Your task to perform on an android device: turn smart compose on in the gmail app Image 0: 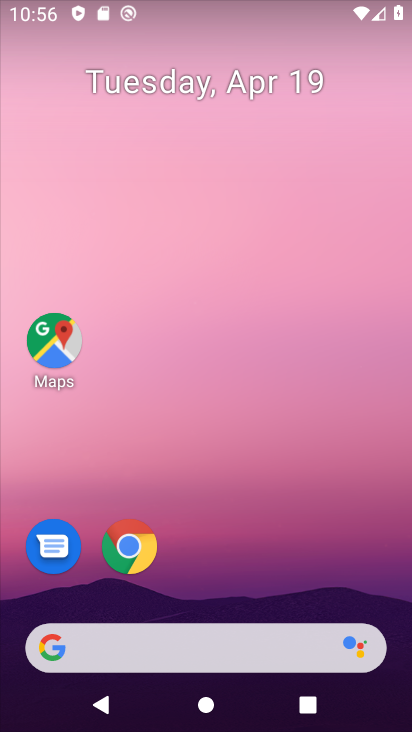
Step 0: drag from (234, 614) to (259, 0)
Your task to perform on an android device: turn smart compose on in the gmail app Image 1: 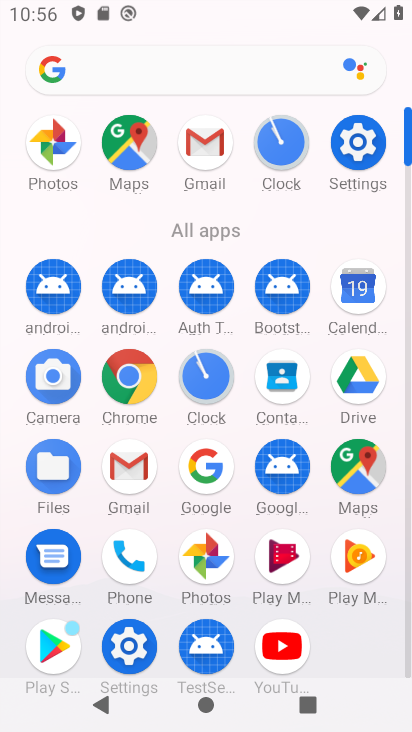
Step 1: click (212, 143)
Your task to perform on an android device: turn smart compose on in the gmail app Image 2: 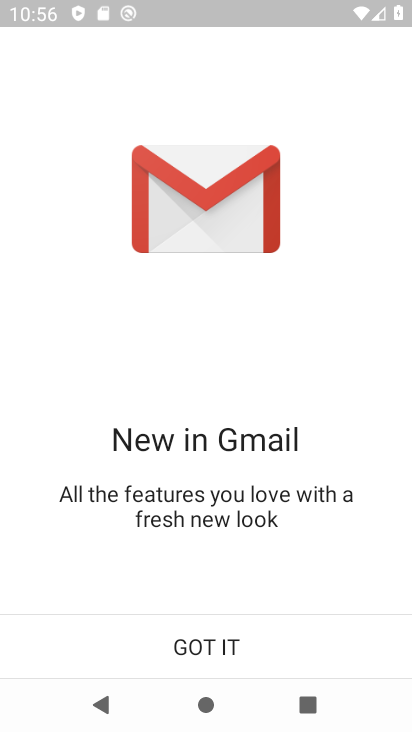
Step 2: click (222, 622)
Your task to perform on an android device: turn smart compose on in the gmail app Image 3: 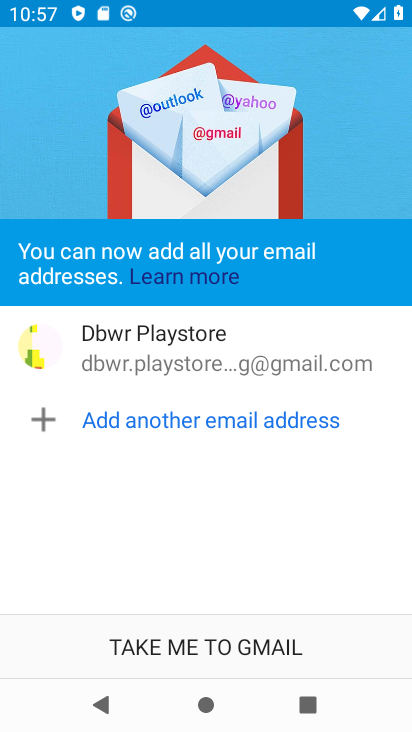
Step 3: click (196, 640)
Your task to perform on an android device: turn smart compose on in the gmail app Image 4: 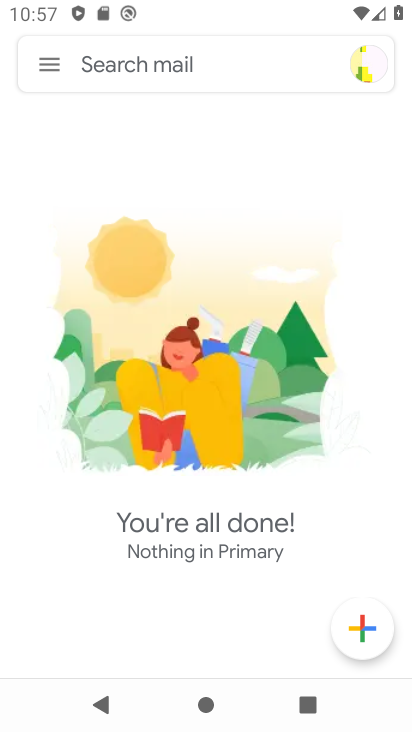
Step 4: click (53, 75)
Your task to perform on an android device: turn smart compose on in the gmail app Image 5: 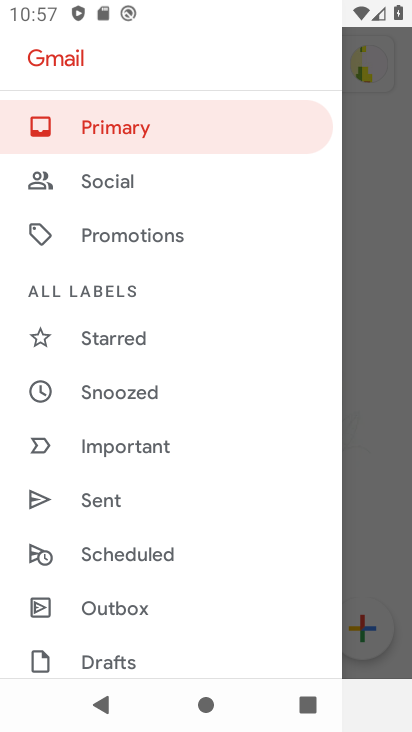
Step 5: drag from (156, 649) to (53, 0)
Your task to perform on an android device: turn smart compose on in the gmail app Image 6: 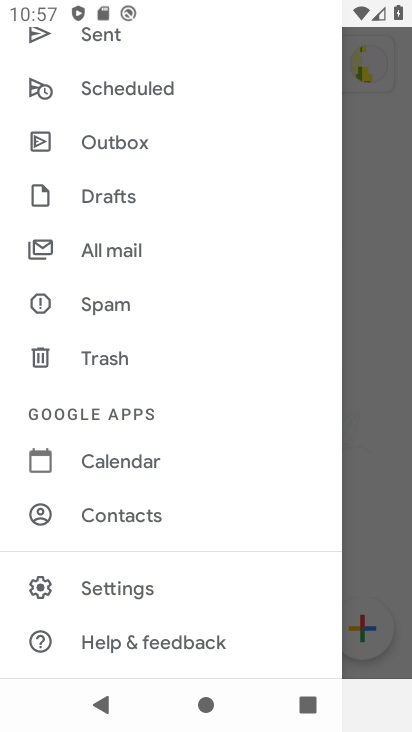
Step 6: click (116, 580)
Your task to perform on an android device: turn smart compose on in the gmail app Image 7: 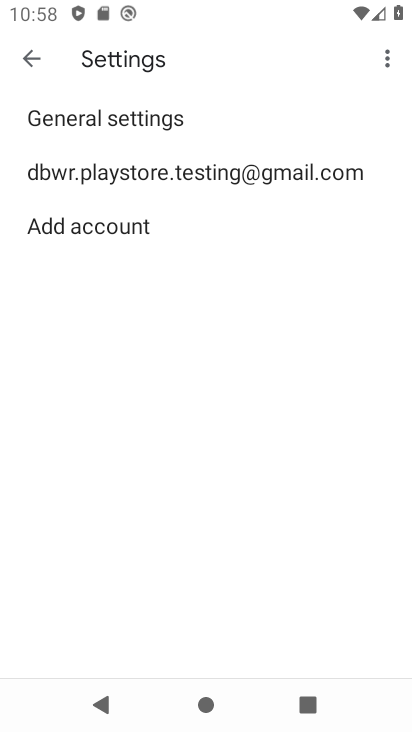
Step 7: click (223, 166)
Your task to perform on an android device: turn smart compose on in the gmail app Image 8: 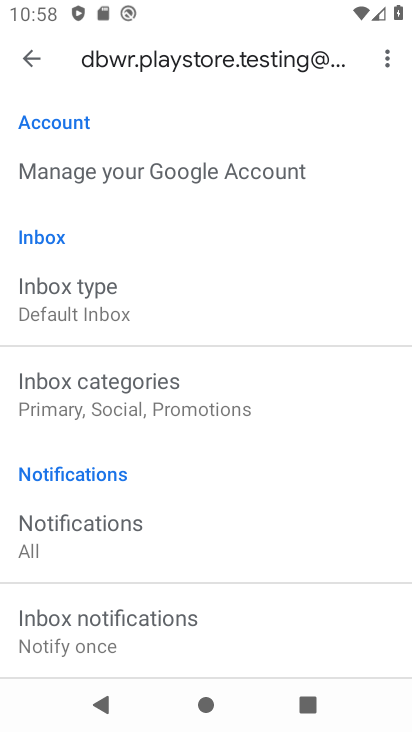
Step 8: task complete